Your task to perform on an android device: Show me recent news Image 0: 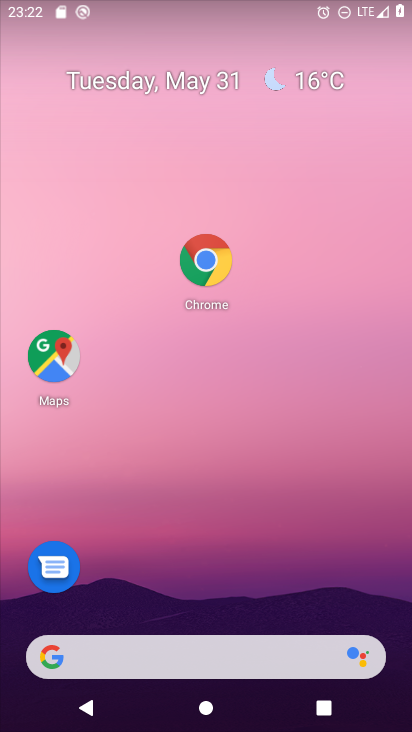
Step 0: drag from (158, 600) to (147, 274)
Your task to perform on an android device: Show me recent news Image 1: 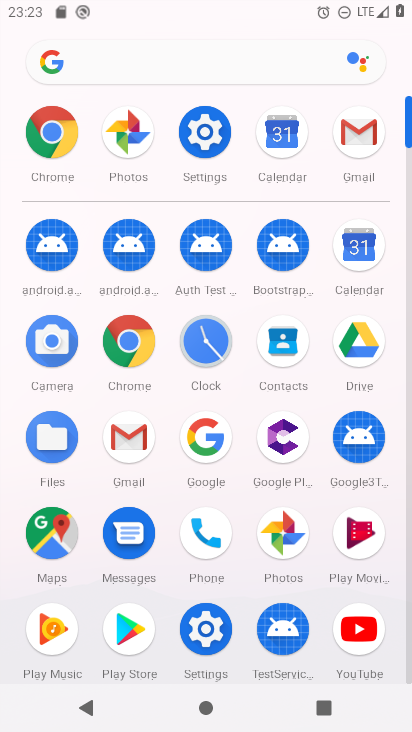
Step 1: click (183, 442)
Your task to perform on an android device: Show me recent news Image 2: 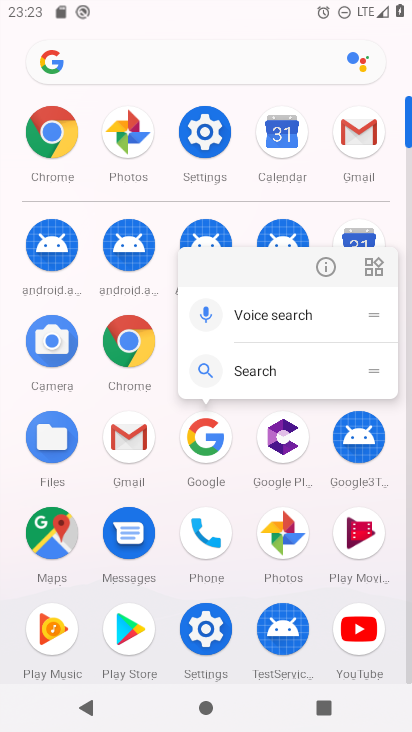
Step 2: click (191, 442)
Your task to perform on an android device: Show me recent news Image 3: 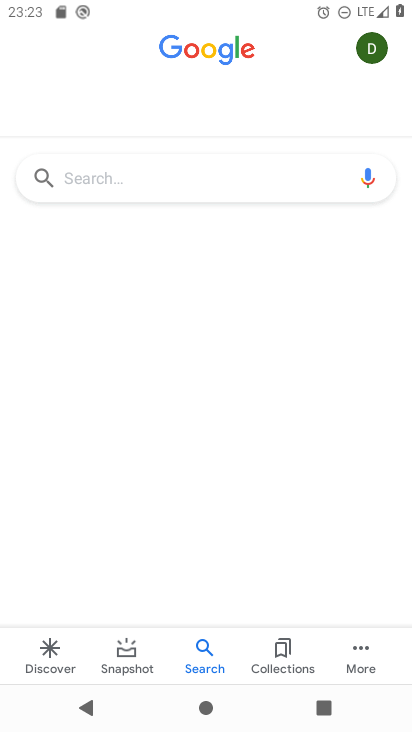
Step 3: click (64, 186)
Your task to perform on an android device: Show me recent news Image 4: 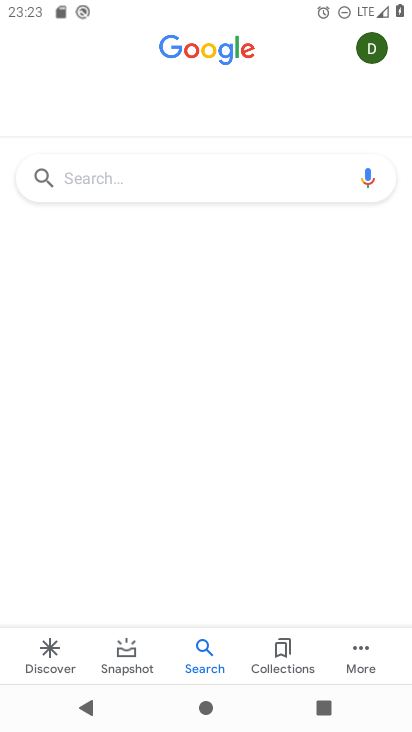
Step 4: click (64, 186)
Your task to perform on an android device: Show me recent news Image 5: 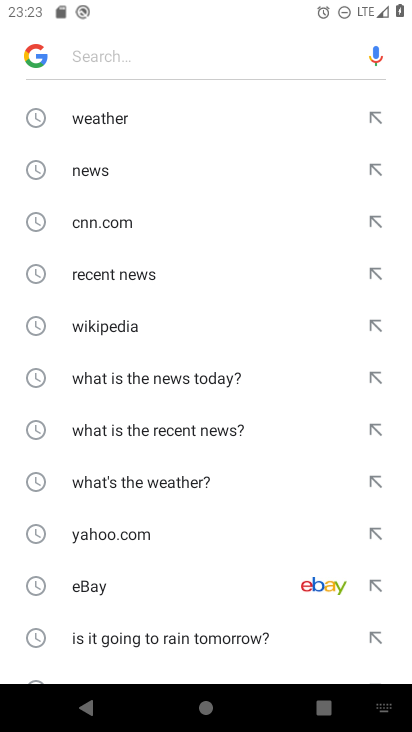
Step 5: click (126, 286)
Your task to perform on an android device: Show me recent news Image 6: 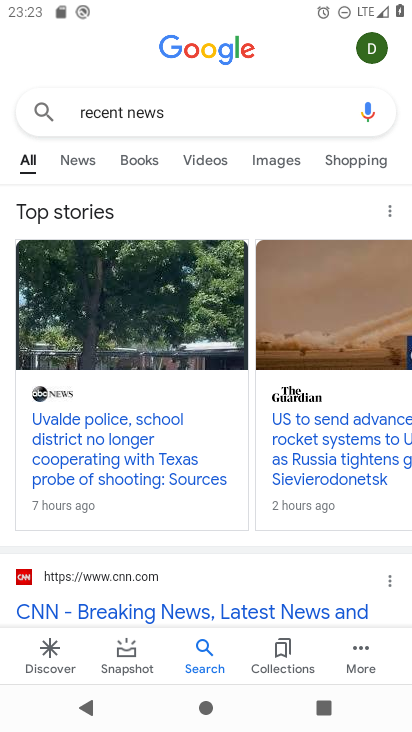
Step 6: task complete